Your task to perform on an android device: Open my contact list Image 0: 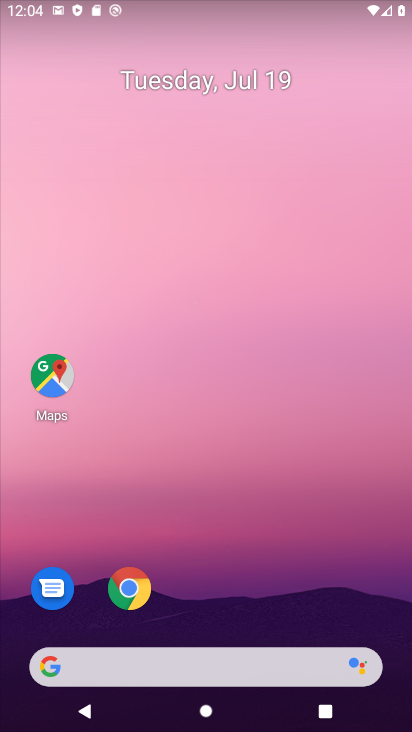
Step 0: drag from (385, 628) to (251, 149)
Your task to perform on an android device: Open my contact list Image 1: 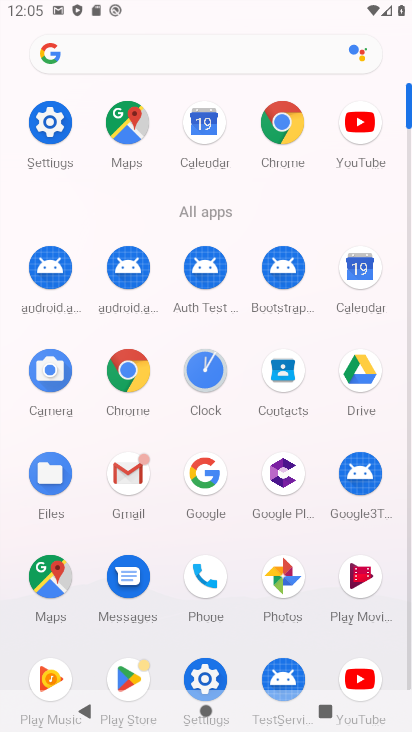
Step 1: click (286, 385)
Your task to perform on an android device: Open my contact list Image 2: 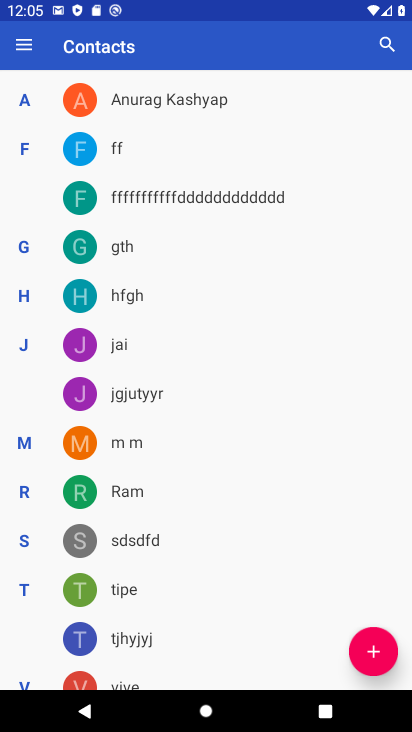
Step 2: task complete